Your task to perform on an android device: Go to sound settings Image 0: 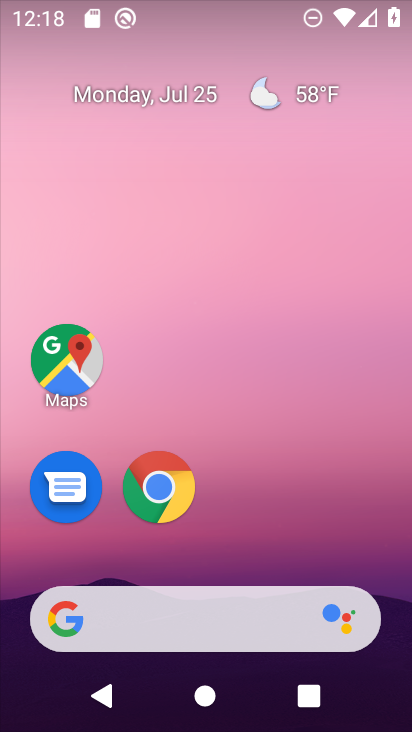
Step 0: drag from (174, 537) to (309, 10)
Your task to perform on an android device: Go to sound settings Image 1: 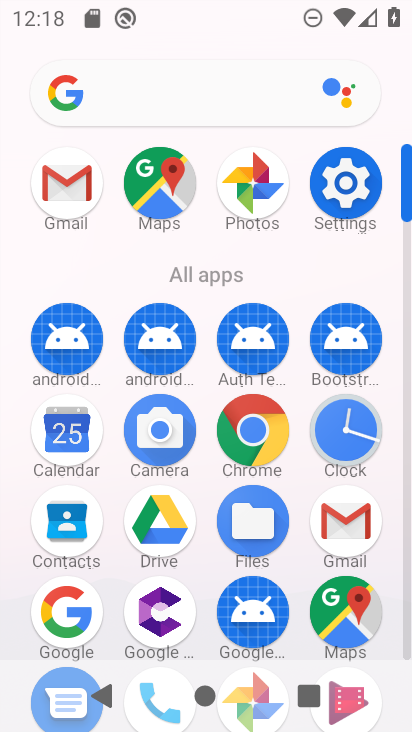
Step 1: click (343, 191)
Your task to perform on an android device: Go to sound settings Image 2: 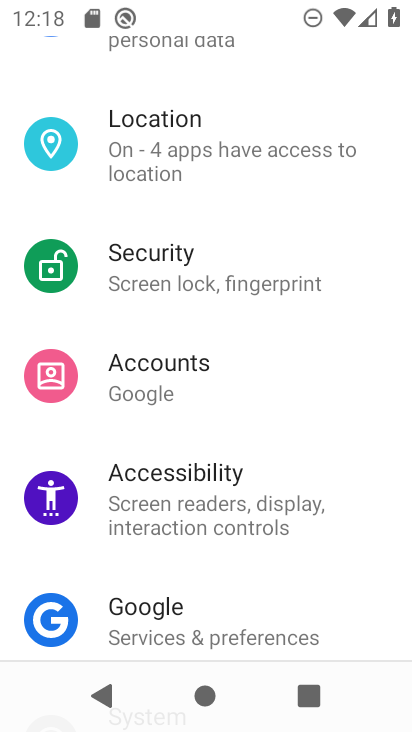
Step 2: drag from (174, 87) to (219, 697)
Your task to perform on an android device: Go to sound settings Image 3: 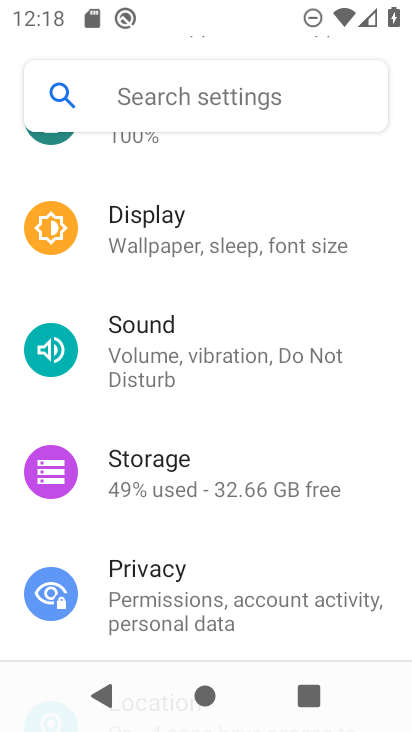
Step 3: click (157, 367)
Your task to perform on an android device: Go to sound settings Image 4: 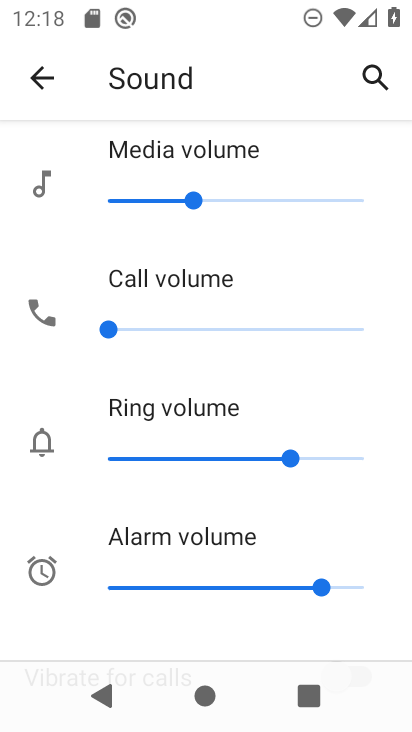
Step 4: task complete